Your task to perform on an android device: turn on the 12-hour format for clock Image 0: 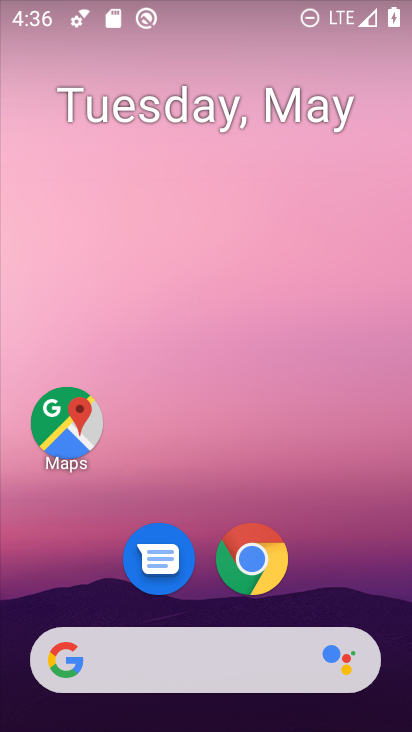
Step 0: drag from (254, 725) to (255, 180)
Your task to perform on an android device: turn on the 12-hour format for clock Image 1: 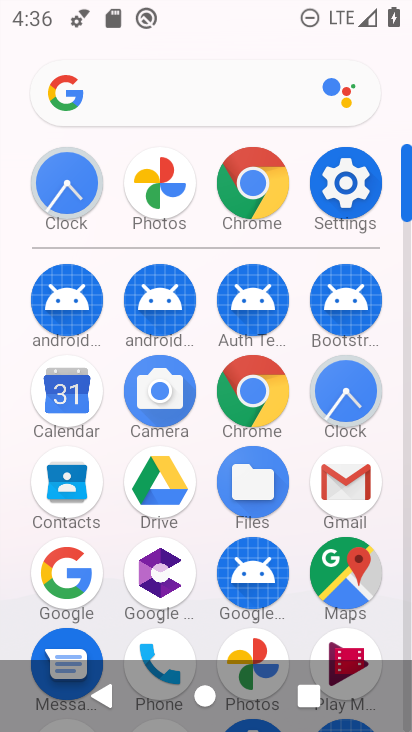
Step 1: click (348, 392)
Your task to perform on an android device: turn on the 12-hour format for clock Image 2: 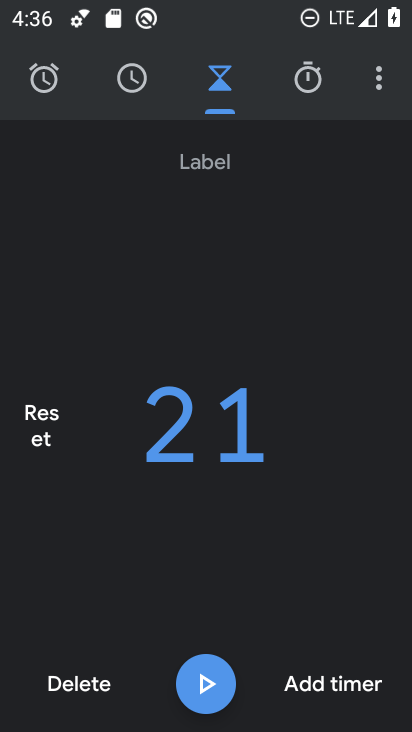
Step 2: click (380, 86)
Your task to perform on an android device: turn on the 12-hour format for clock Image 3: 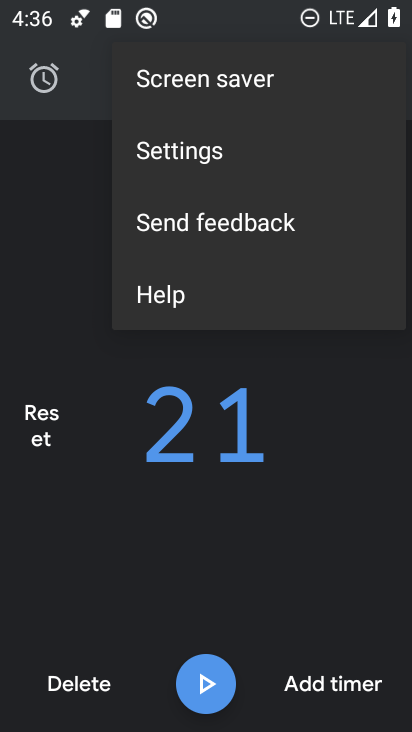
Step 3: click (197, 155)
Your task to perform on an android device: turn on the 12-hour format for clock Image 4: 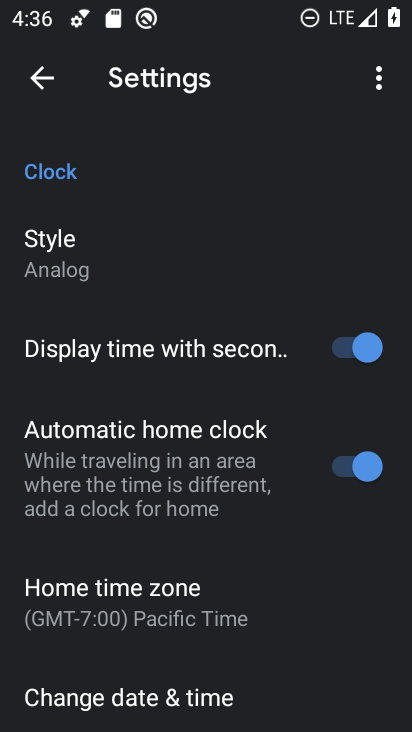
Step 4: click (139, 686)
Your task to perform on an android device: turn on the 12-hour format for clock Image 5: 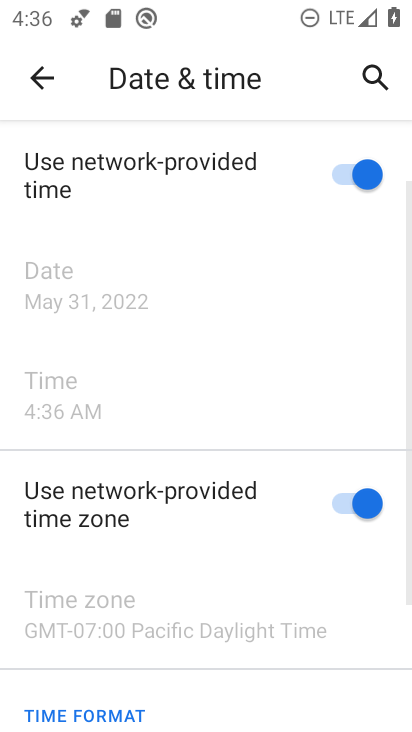
Step 5: drag from (214, 695) to (218, 244)
Your task to perform on an android device: turn on the 12-hour format for clock Image 6: 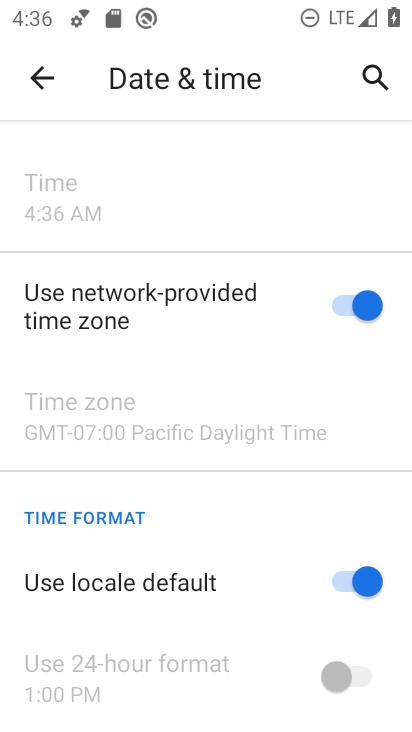
Step 6: click (346, 578)
Your task to perform on an android device: turn on the 12-hour format for clock Image 7: 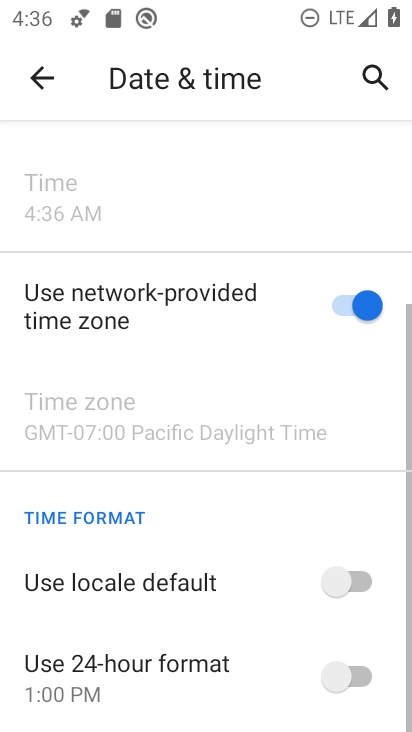
Step 7: click (358, 676)
Your task to perform on an android device: turn on the 12-hour format for clock Image 8: 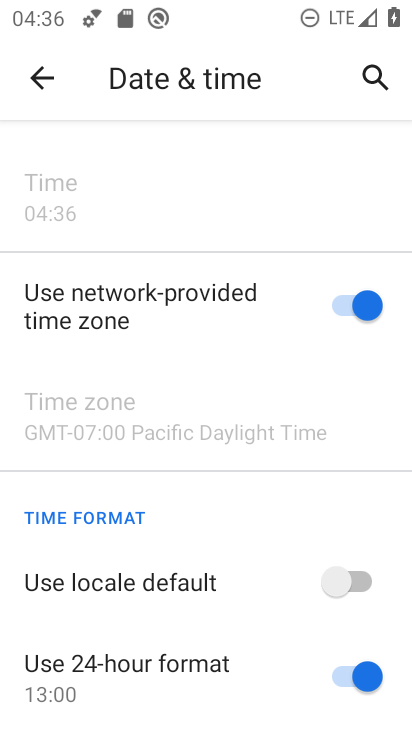
Step 8: task complete